Your task to perform on an android device: uninstall "DoorDash - Dasher" Image 0: 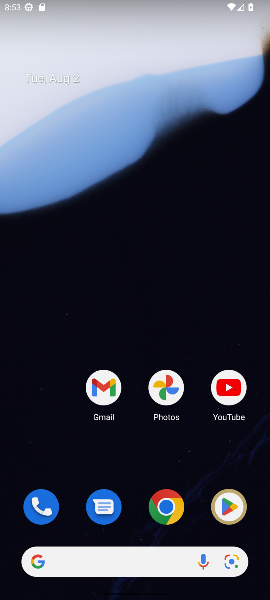
Step 0: press home button
Your task to perform on an android device: uninstall "DoorDash - Dasher" Image 1: 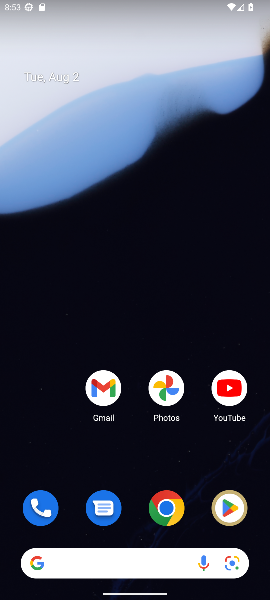
Step 1: task complete